Your task to perform on an android device: Open my contact list Image 0: 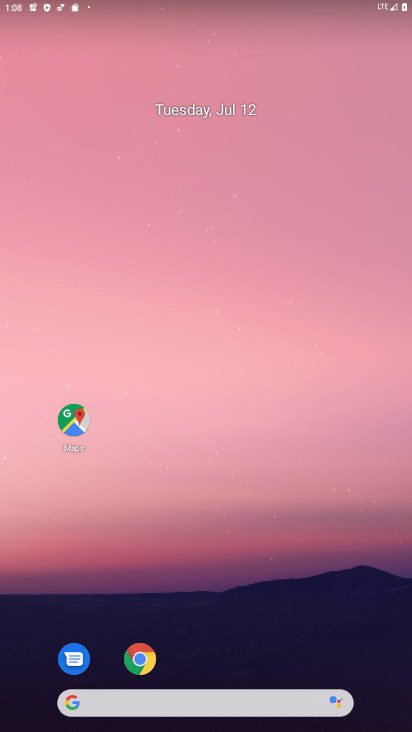
Step 0: drag from (218, 572) to (218, 169)
Your task to perform on an android device: Open my contact list Image 1: 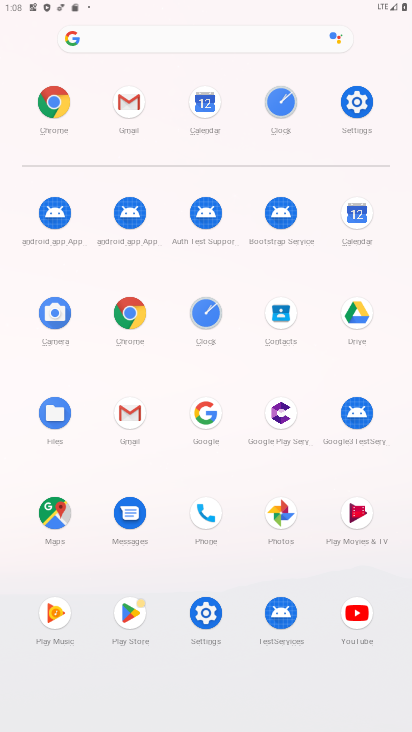
Step 1: click (278, 318)
Your task to perform on an android device: Open my contact list Image 2: 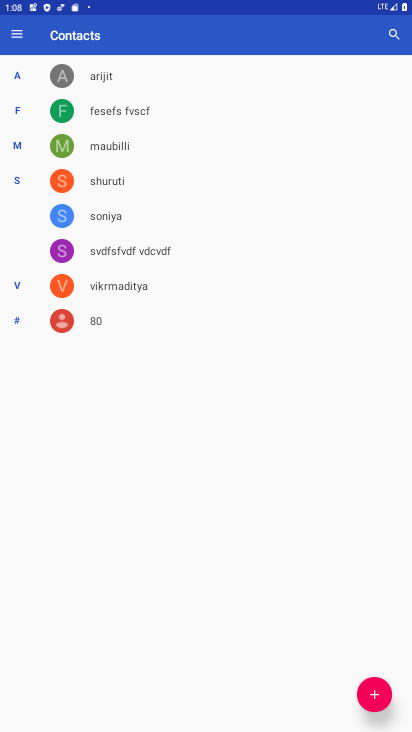
Step 2: task complete